Your task to perform on an android device: Search for seafood restaurants on Google Maps Image 0: 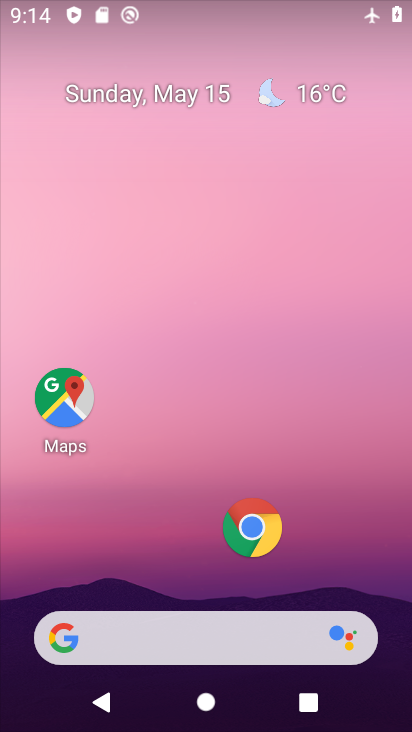
Step 0: click (62, 394)
Your task to perform on an android device: Search for seafood restaurants on Google Maps Image 1: 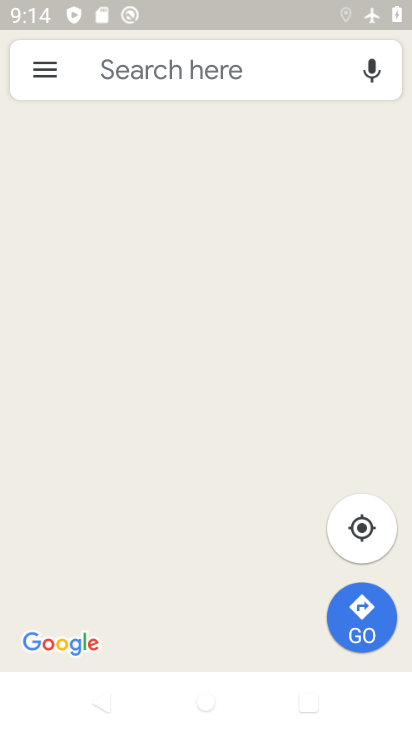
Step 1: click (166, 65)
Your task to perform on an android device: Search for seafood restaurants on Google Maps Image 2: 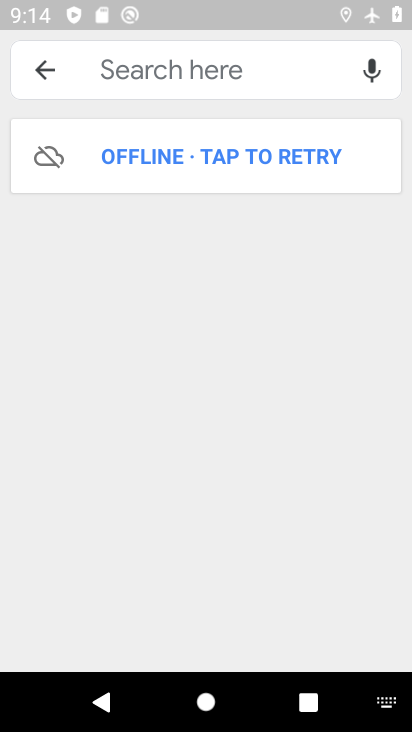
Step 2: type "seafood"
Your task to perform on an android device: Search for seafood restaurants on Google Maps Image 3: 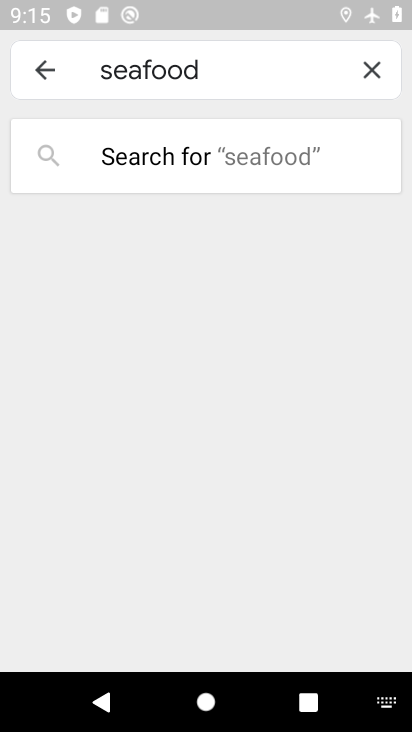
Step 3: task complete